Your task to perform on an android device: Go to ESPN.com Image 0: 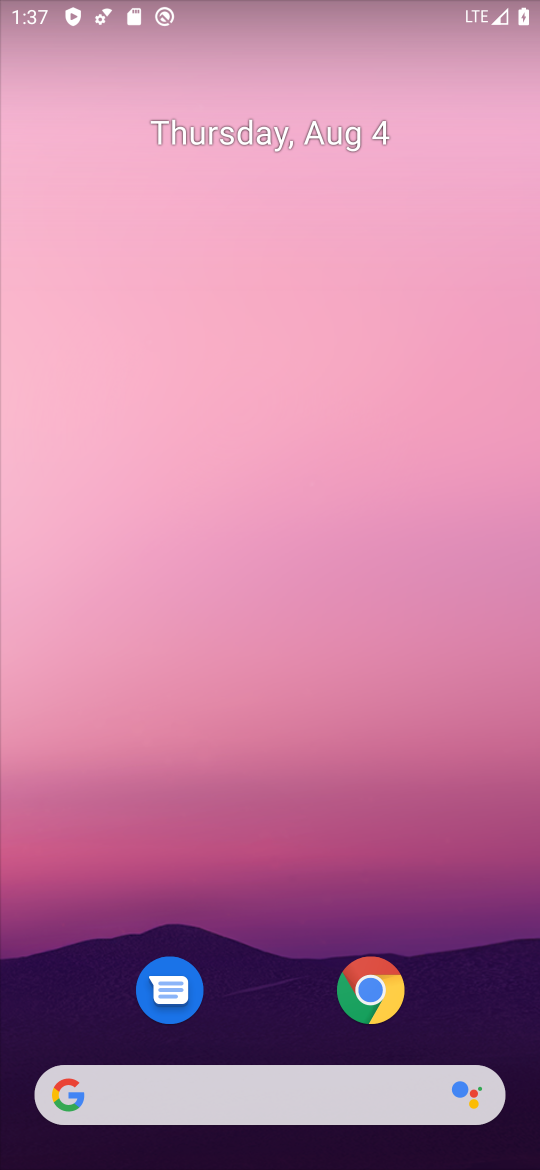
Step 0: drag from (294, 1029) to (294, 371)
Your task to perform on an android device: Go to ESPN.com Image 1: 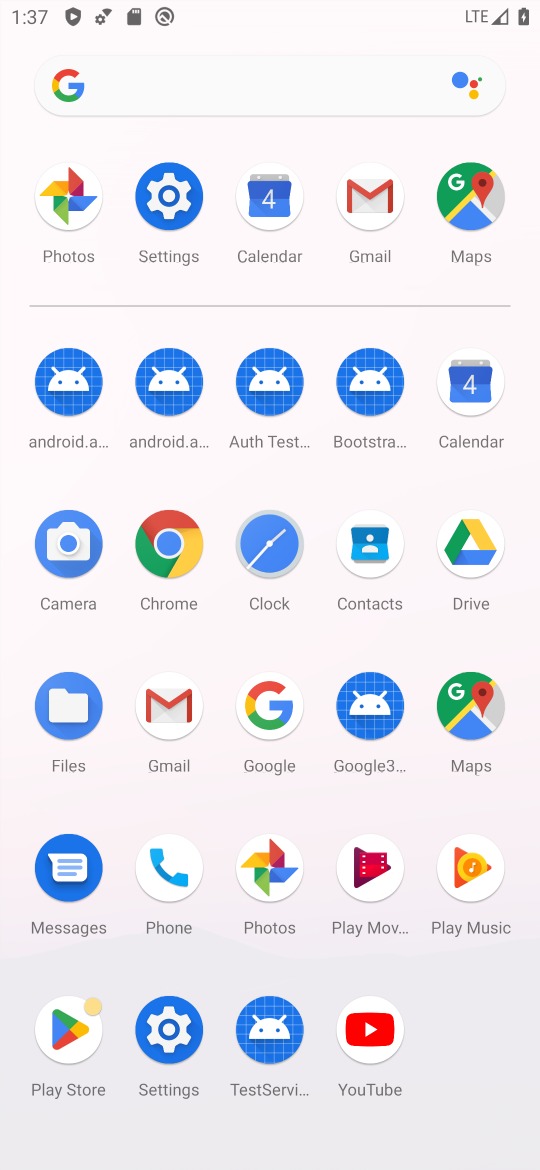
Step 1: click (301, 91)
Your task to perform on an android device: Go to ESPN.com Image 2: 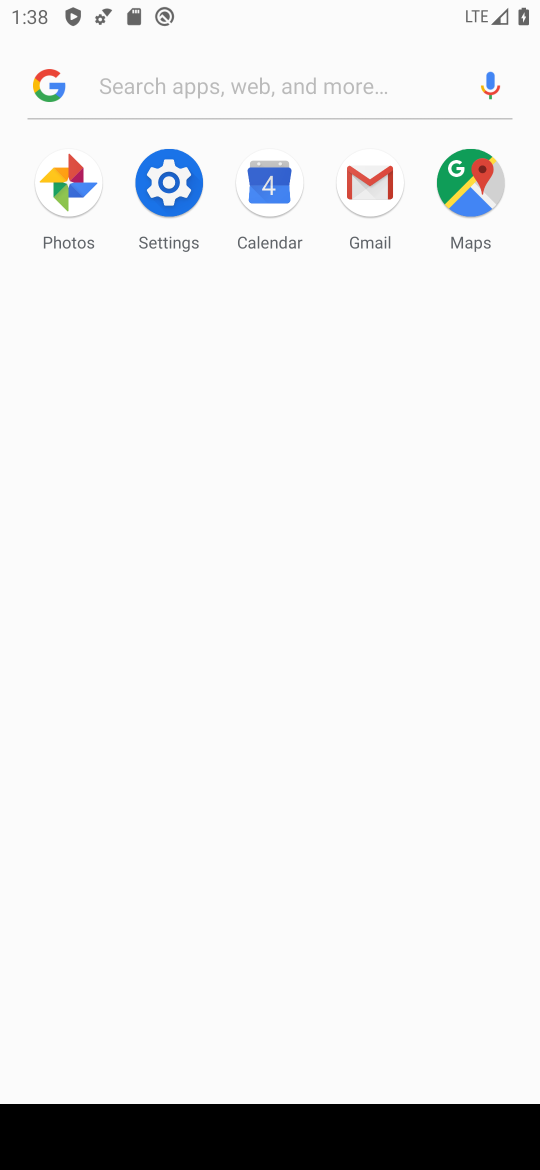
Step 2: type "espn.com"
Your task to perform on an android device: Go to ESPN.com Image 3: 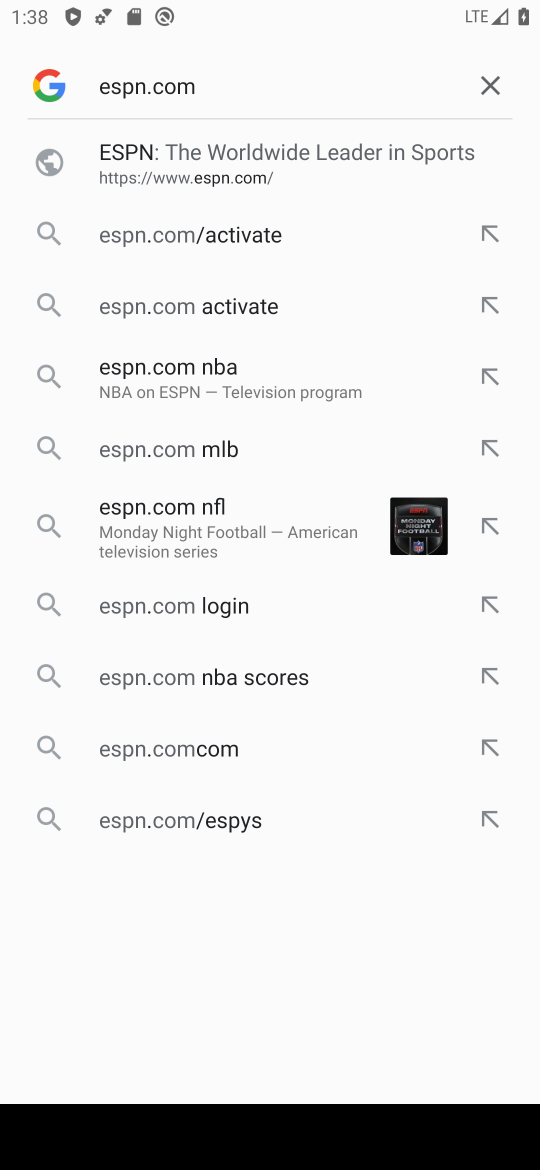
Step 3: click (313, 147)
Your task to perform on an android device: Go to ESPN.com Image 4: 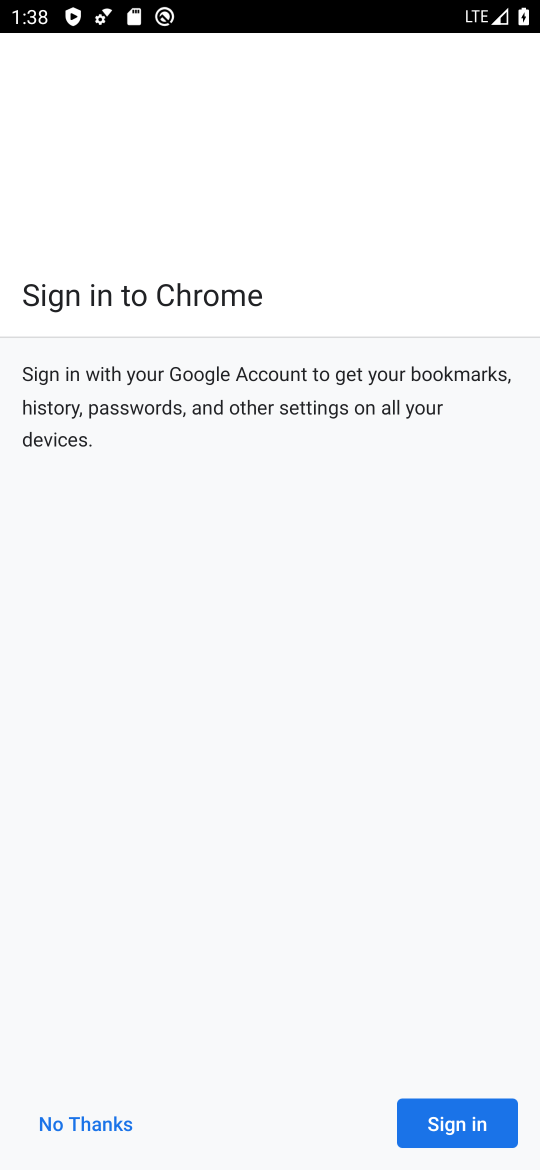
Step 4: click (435, 1140)
Your task to perform on an android device: Go to ESPN.com Image 5: 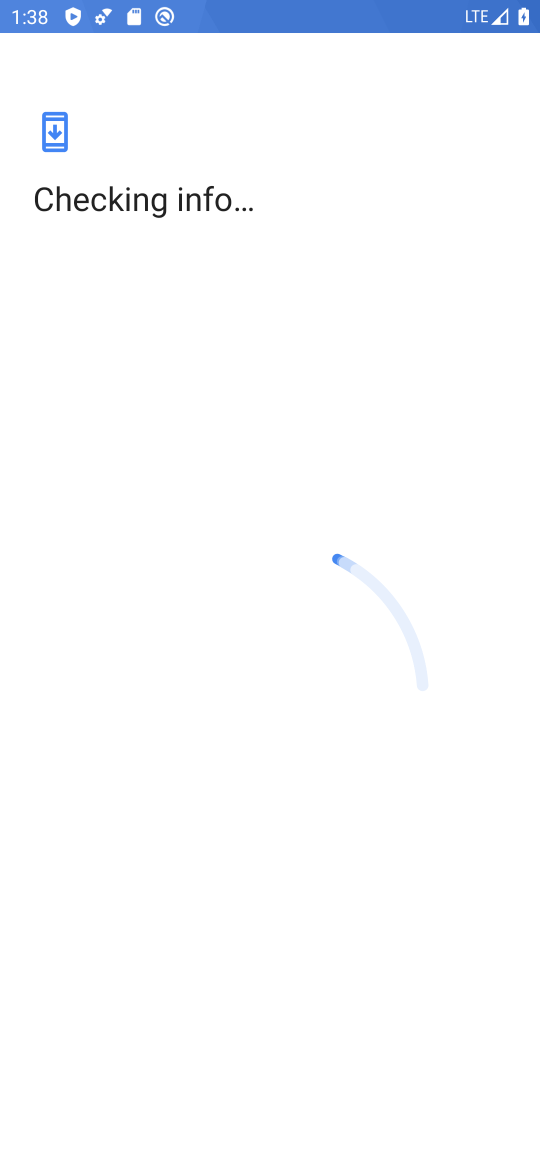
Step 5: task complete